Your task to perform on an android device: stop showing notifications on the lock screen Image 0: 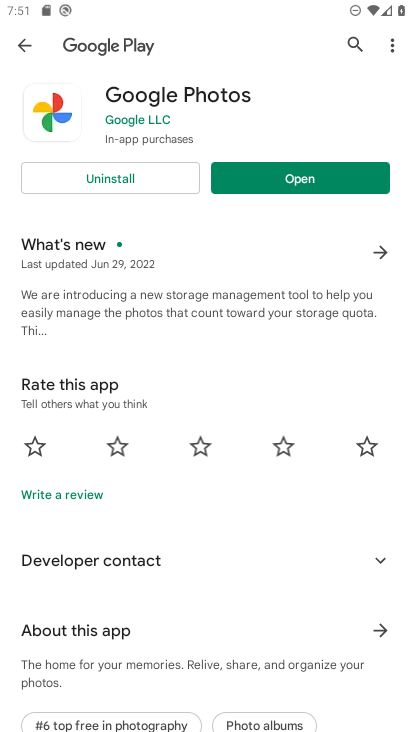
Step 0: press home button
Your task to perform on an android device: stop showing notifications on the lock screen Image 1: 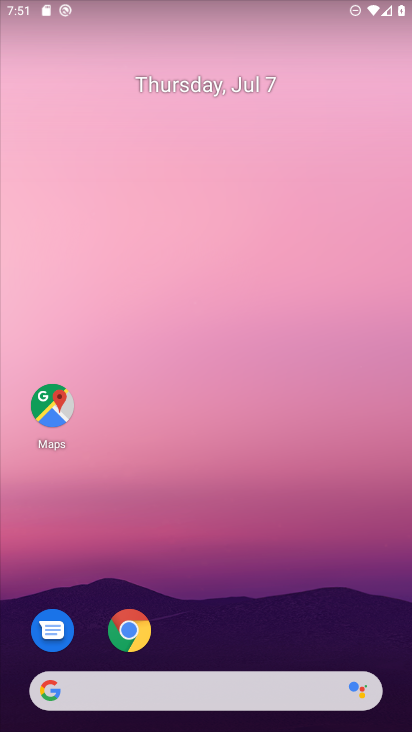
Step 1: drag from (239, 564) to (146, 192)
Your task to perform on an android device: stop showing notifications on the lock screen Image 2: 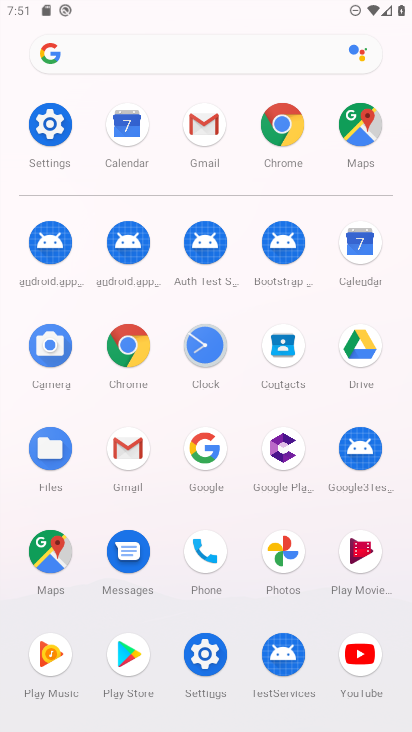
Step 2: click (54, 124)
Your task to perform on an android device: stop showing notifications on the lock screen Image 3: 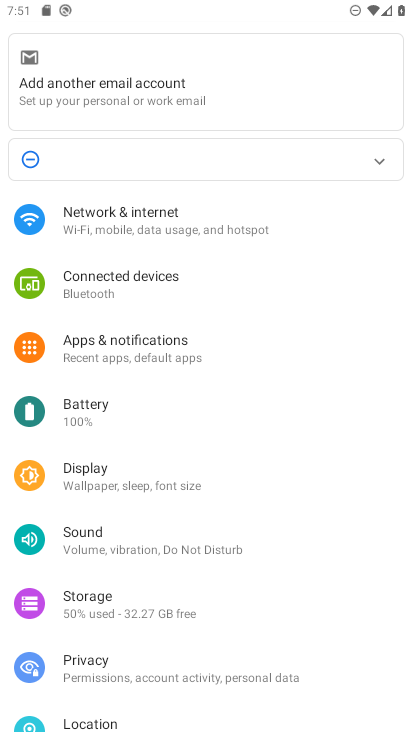
Step 3: drag from (231, 489) to (205, 245)
Your task to perform on an android device: stop showing notifications on the lock screen Image 4: 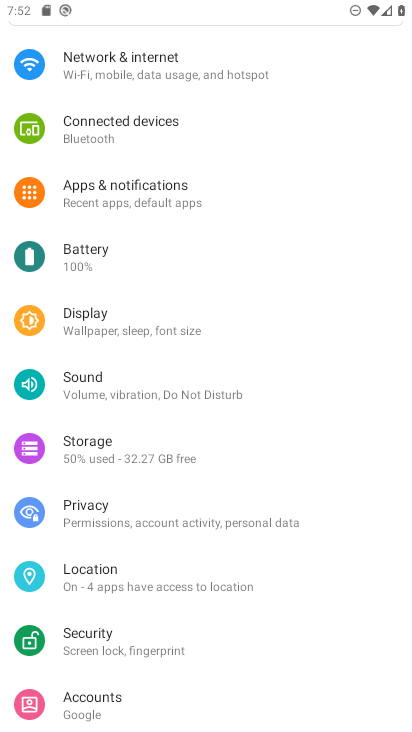
Step 4: click (111, 185)
Your task to perform on an android device: stop showing notifications on the lock screen Image 5: 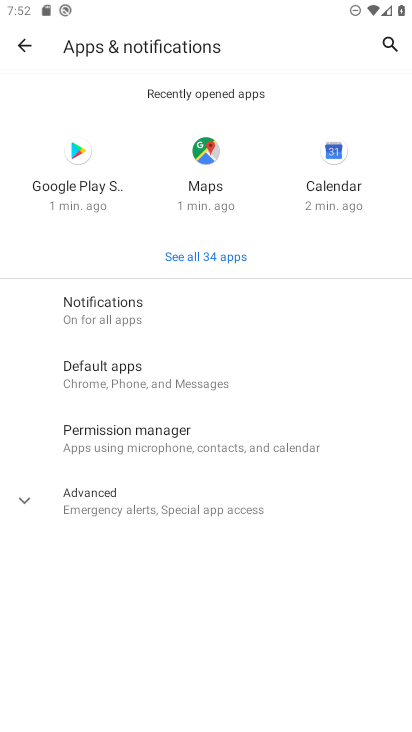
Step 5: click (127, 306)
Your task to perform on an android device: stop showing notifications on the lock screen Image 6: 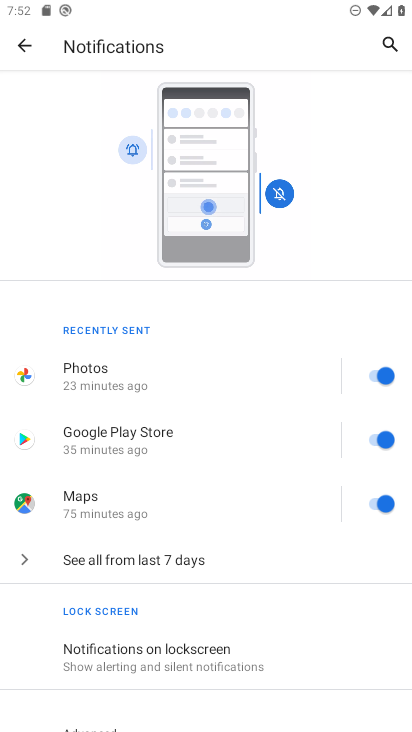
Step 6: click (202, 649)
Your task to perform on an android device: stop showing notifications on the lock screen Image 7: 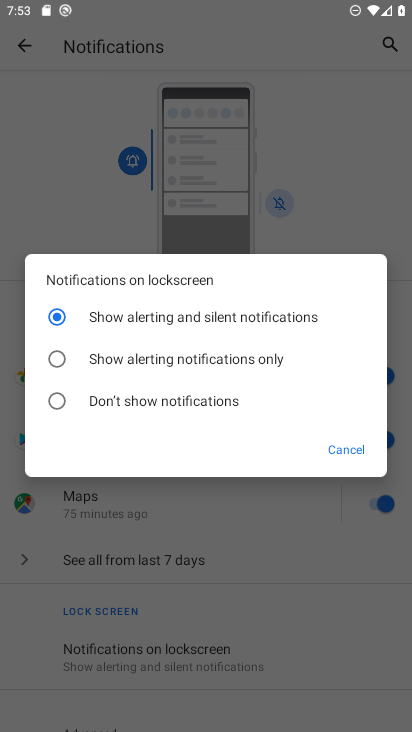
Step 7: click (56, 403)
Your task to perform on an android device: stop showing notifications on the lock screen Image 8: 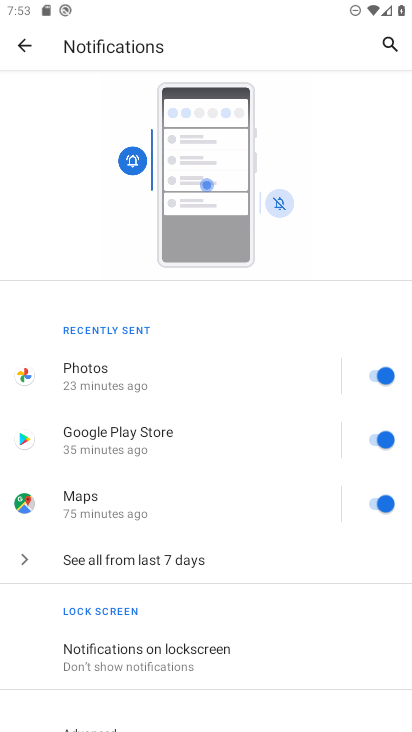
Step 8: task complete